Your task to perform on an android device: turn on wifi Image 0: 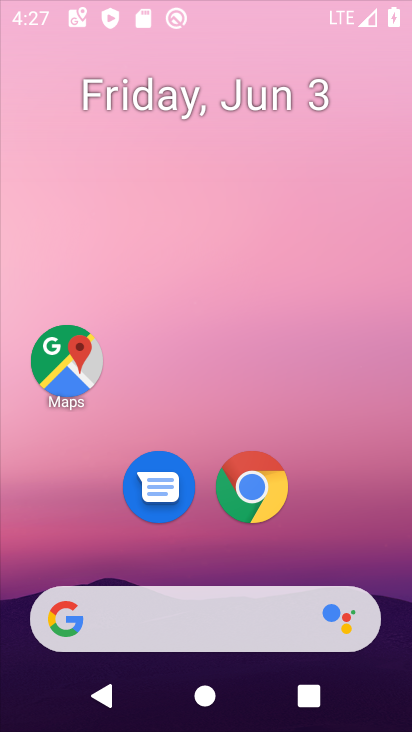
Step 0: click (265, 120)
Your task to perform on an android device: turn on wifi Image 1: 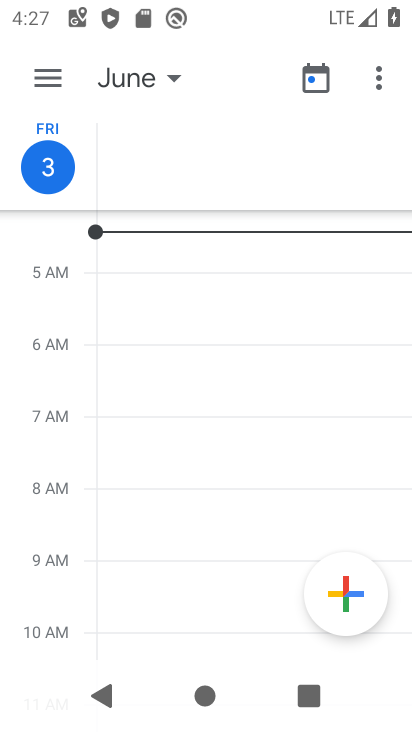
Step 1: press home button
Your task to perform on an android device: turn on wifi Image 2: 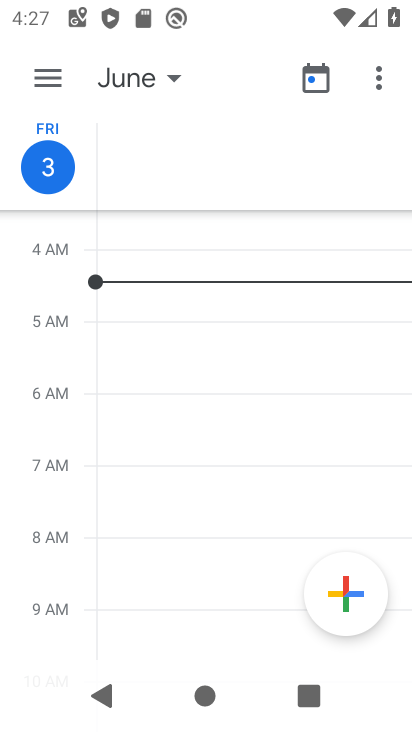
Step 2: drag from (267, 83) to (360, 9)
Your task to perform on an android device: turn on wifi Image 3: 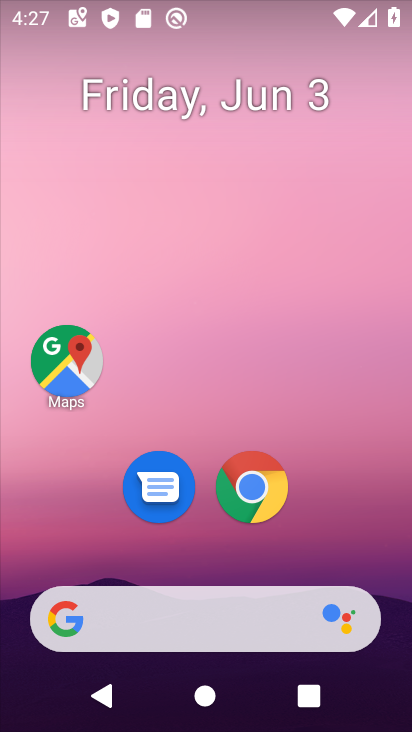
Step 3: drag from (215, 538) to (253, 84)
Your task to perform on an android device: turn on wifi Image 4: 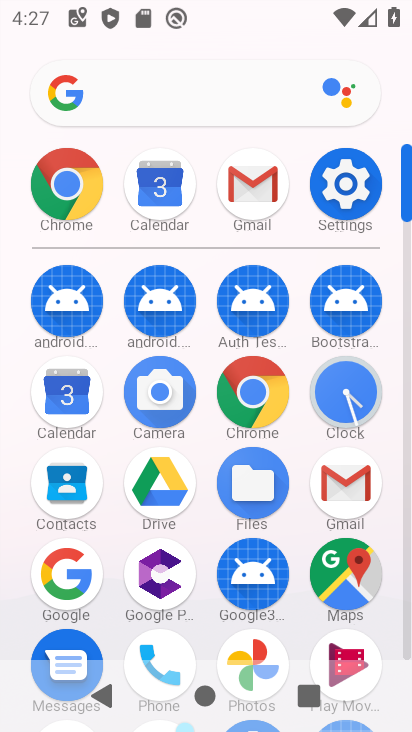
Step 4: click (355, 183)
Your task to perform on an android device: turn on wifi Image 5: 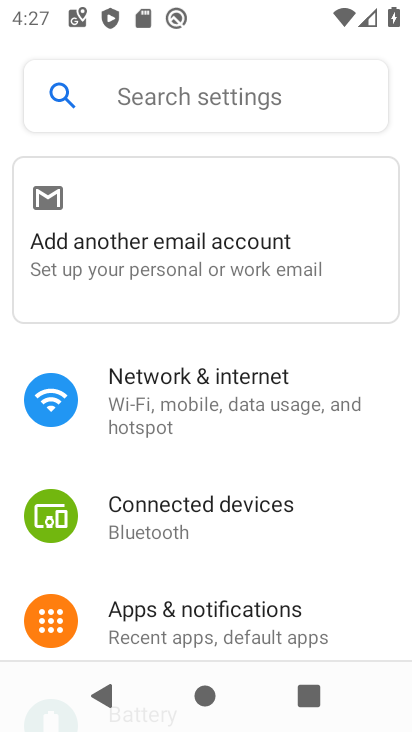
Step 5: drag from (239, 492) to (315, 171)
Your task to perform on an android device: turn on wifi Image 6: 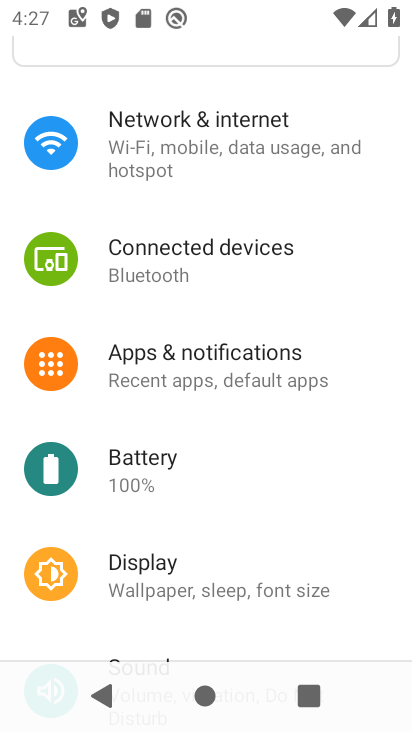
Step 6: drag from (284, 203) to (266, 633)
Your task to perform on an android device: turn on wifi Image 7: 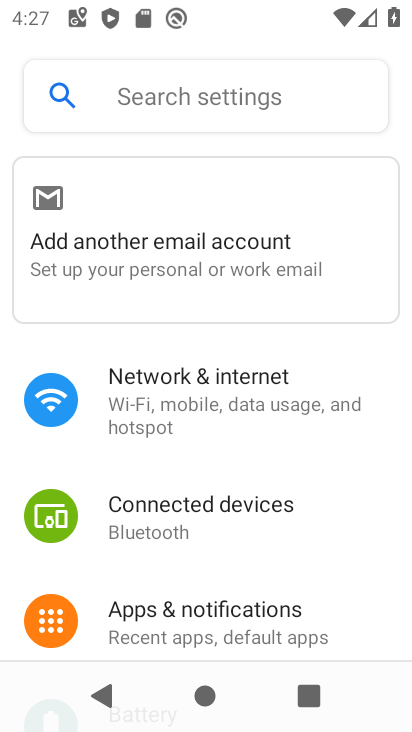
Step 7: click (164, 399)
Your task to perform on an android device: turn on wifi Image 8: 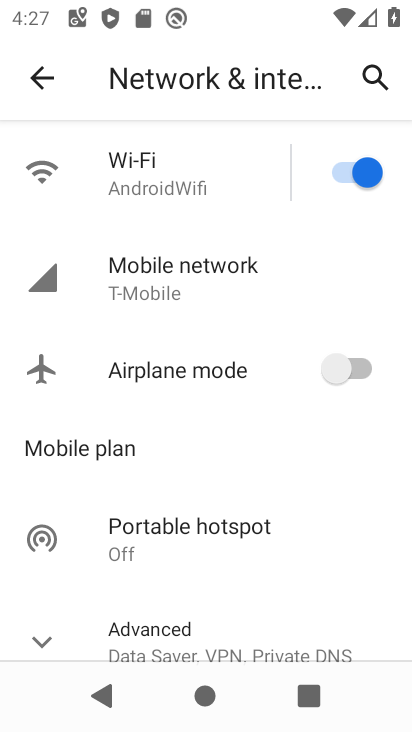
Step 8: click (172, 191)
Your task to perform on an android device: turn on wifi Image 9: 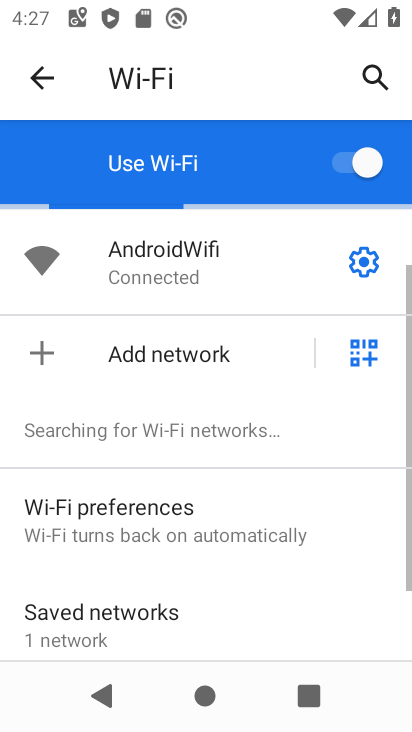
Step 9: task complete